Your task to perform on an android device: search for starred emails in the gmail app Image 0: 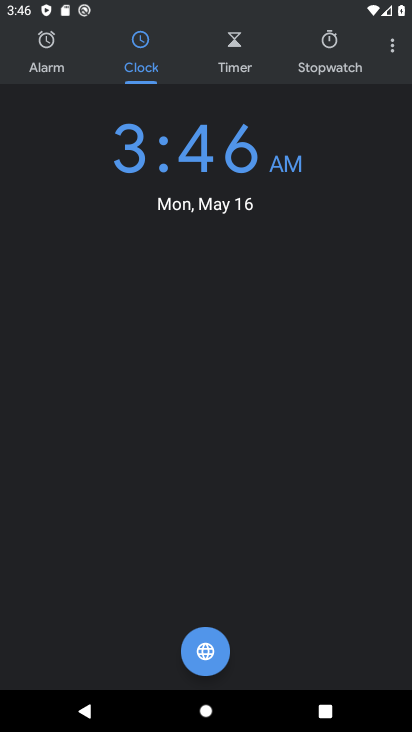
Step 0: press home button
Your task to perform on an android device: search for starred emails in the gmail app Image 1: 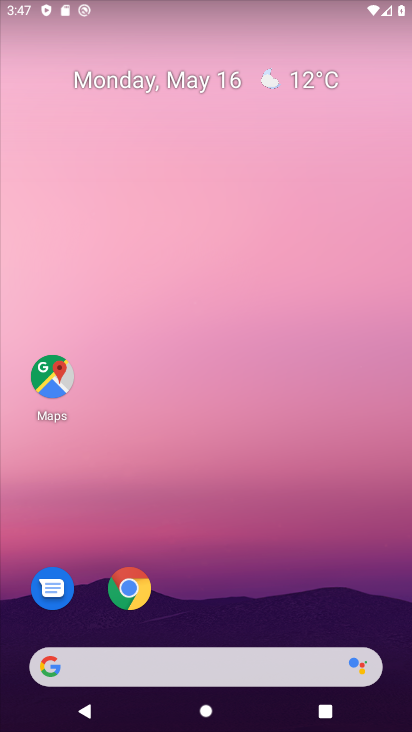
Step 1: drag from (202, 555) to (192, 461)
Your task to perform on an android device: search for starred emails in the gmail app Image 2: 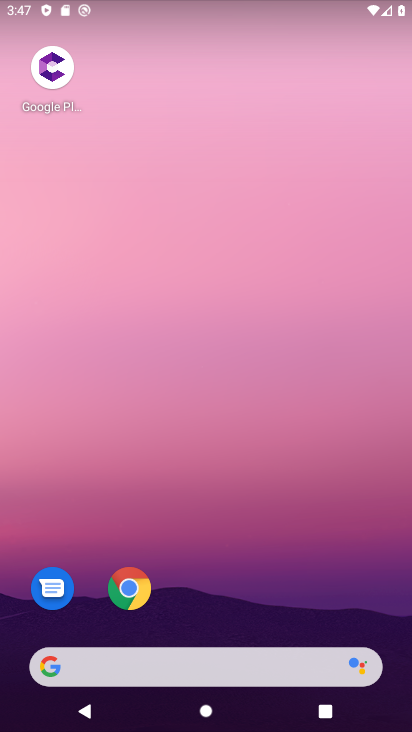
Step 2: drag from (252, 483) to (221, 39)
Your task to perform on an android device: search for starred emails in the gmail app Image 3: 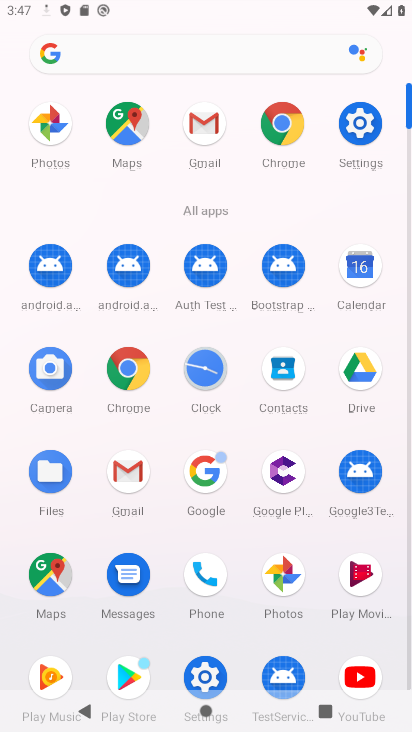
Step 3: click (205, 137)
Your task to perform on an android device: search for starred emails in the gmail app Image 4: 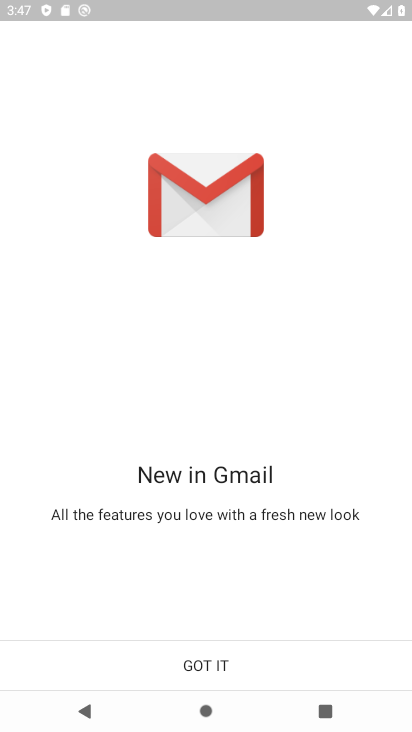
Step 4: click (194, 659)
Your task to perform on an android device: search for starred emails in the gmail app Image 5: 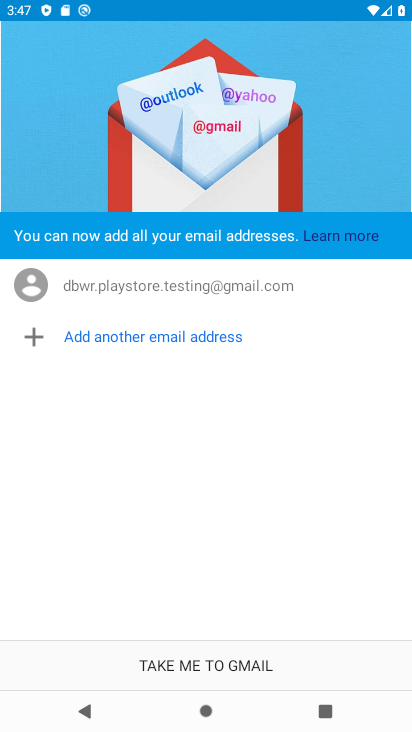
Step 5: drag from (210, 519) to (210, 198)
Your task to perform on an android device: search for starred emails in the gmail app Image 6: 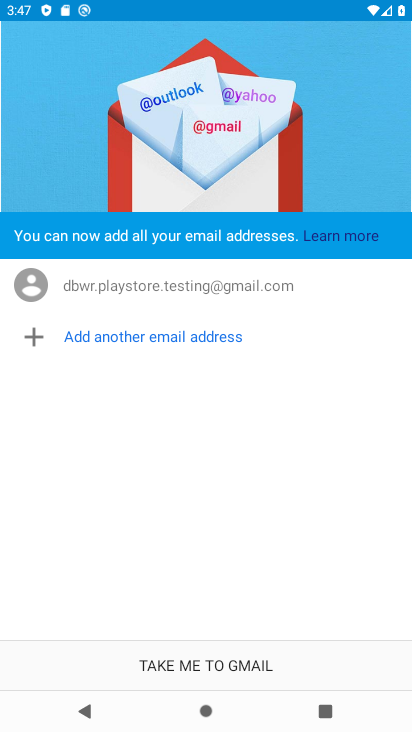
Step 6: drag from (17, 356) to (283, 358)
Your task to perform on an android device: search for starred emails in the gmail app Image 7: 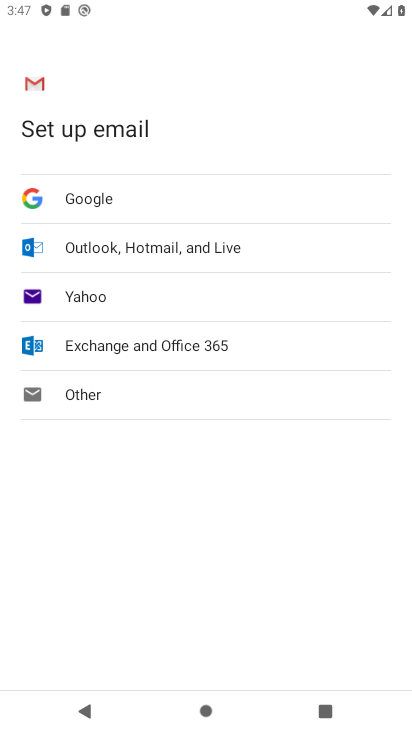
Step 7: press home button
Your task to perform on an android device: search for starred emails in the gmail app Image 8: 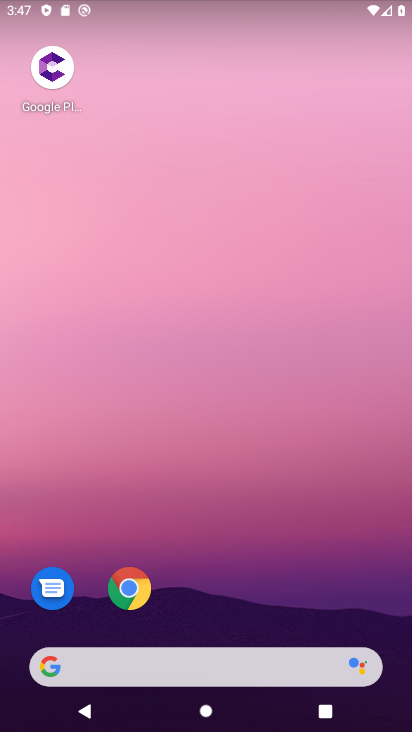
Step 8: drag from (220, 539) to (181, 331)
Your task to perform on an android device: search for starred emails in the gmail app Image 9: 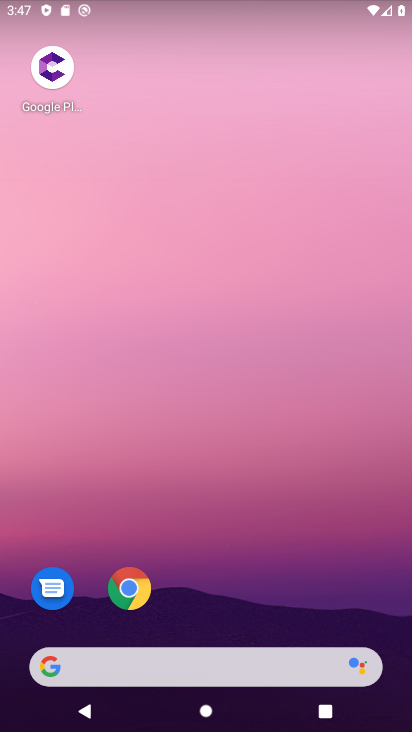
Step 9: drag from (242, 523) to (203, 218)
Your task to perform on an android device: search for starred emails in the gmail app Image 10: 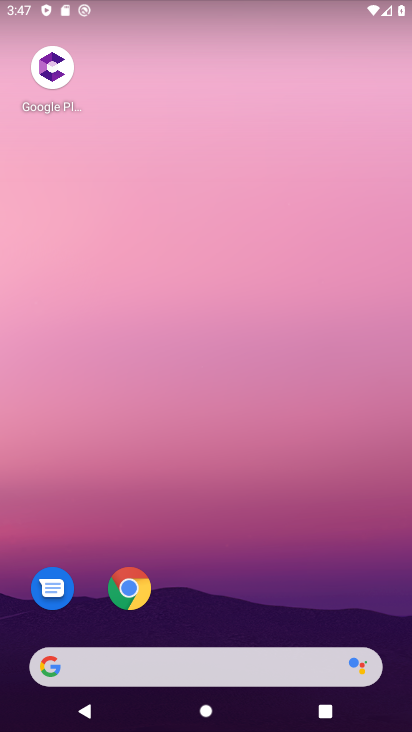
Step 10: drag from (254, 632) to (130, 3)
Your task to perform on an android device: search for starred emails in the gmail app Image 11: 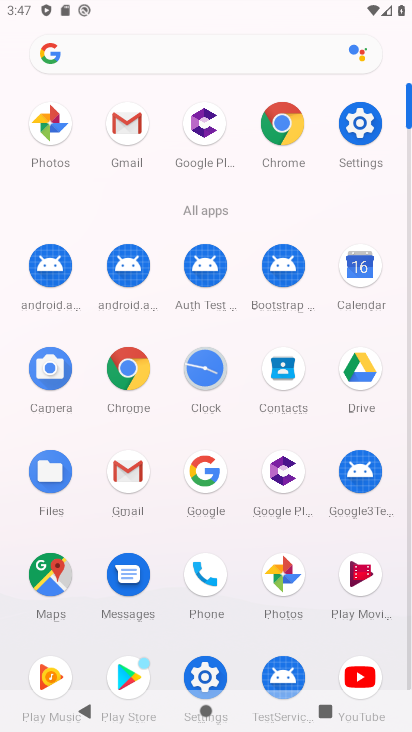
Step 11: drag from (246, 616) to (191, 271)
Your task to perform on an android device: search for starred emails in the gmail app Image 12: 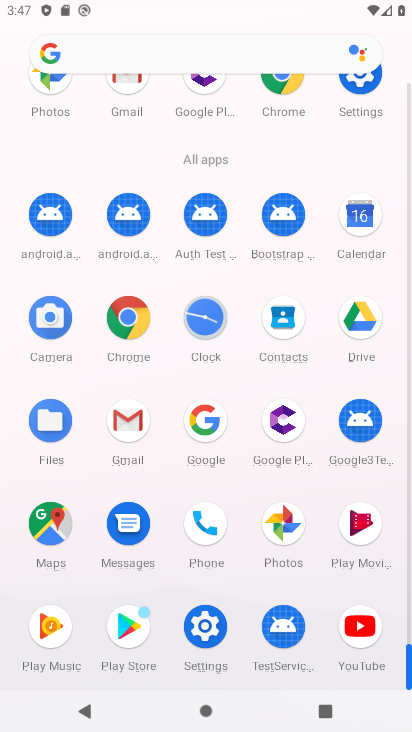
Step 12: click (134, 427)
Your task to perform on an android device: search for starred emails in the gmail app Image 13: 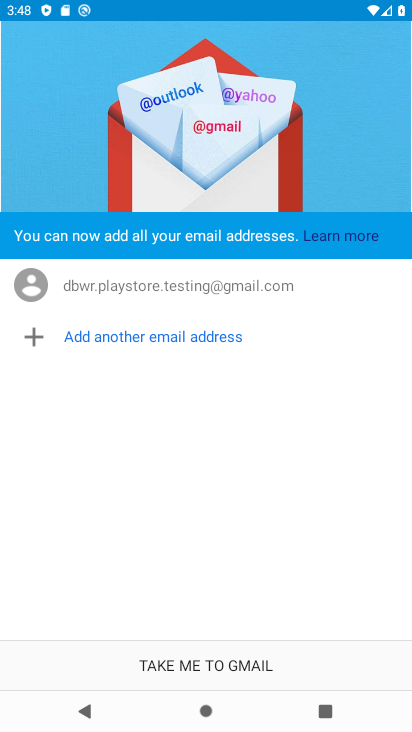
Step 13: drag from (0, 172) to (155, 140)
Your task to perform on an android device: search for starred emails in the gmail app Image 14: 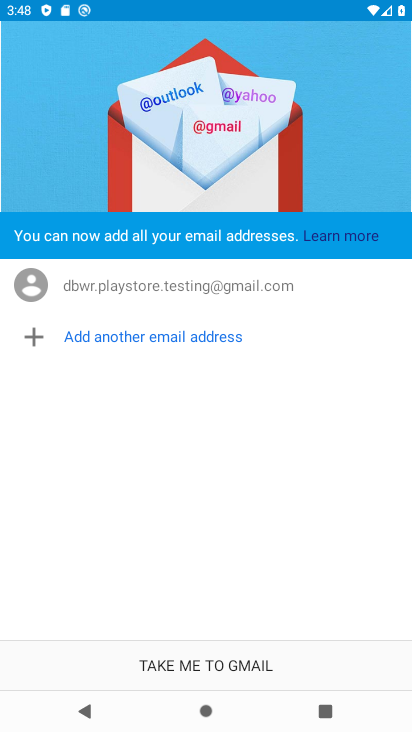
Step 14: drag from (181, 172) to (241, 164)
Your task to perform on an android device: search for starred emails in the gmail app Image 15: 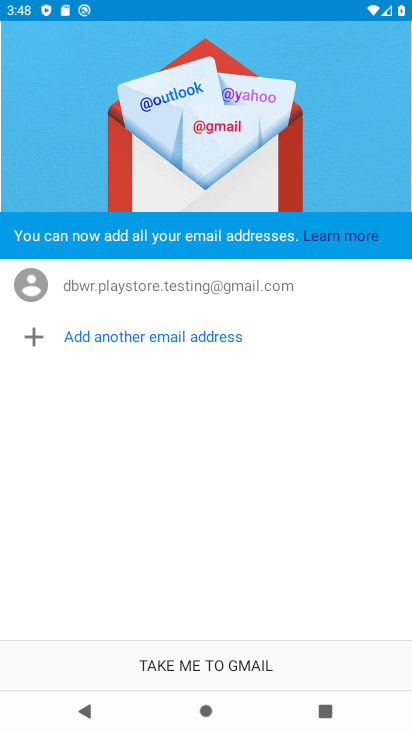
Step 15: click (268, 660)
Your task to perform on an android device: search for starred emails in the gmail app Image 16: 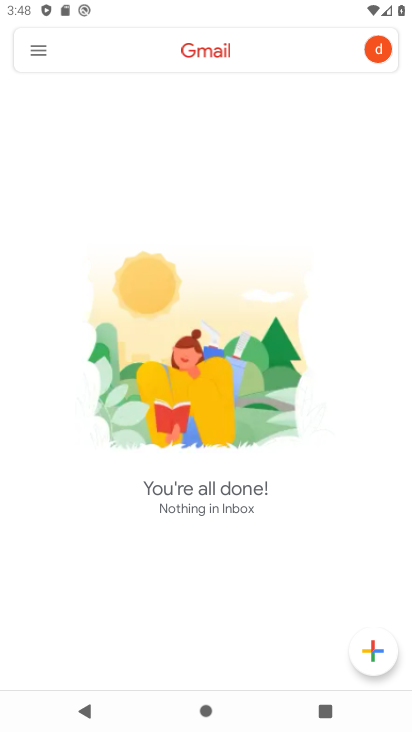
Step 16: click (32, 44)
Your task to perform on an android device: search for starred emails in the gmail app Image 17: 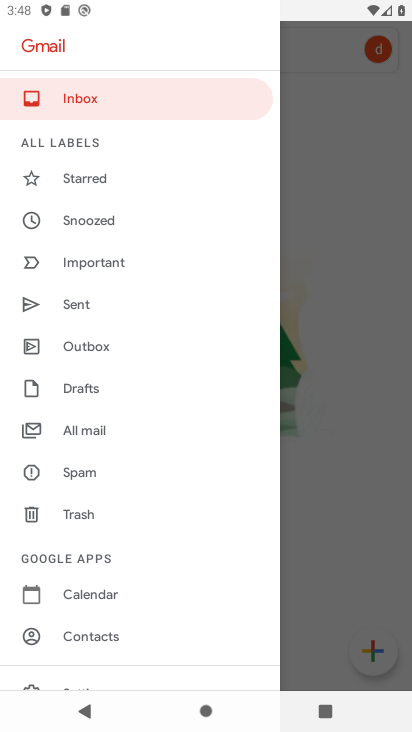
Step 17: click (65, 181)
Your task to perform on an android device: search for starred emails in the gmail app Image 18: 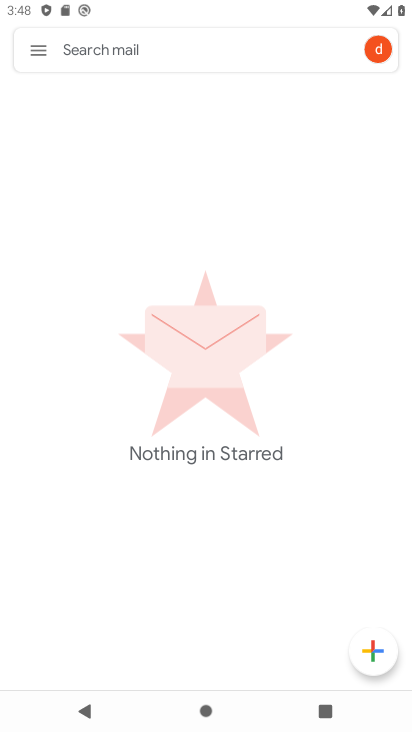
Step 18: task complete